Your task to perform on an android device: refresh tabs in the chrome app Image 0: 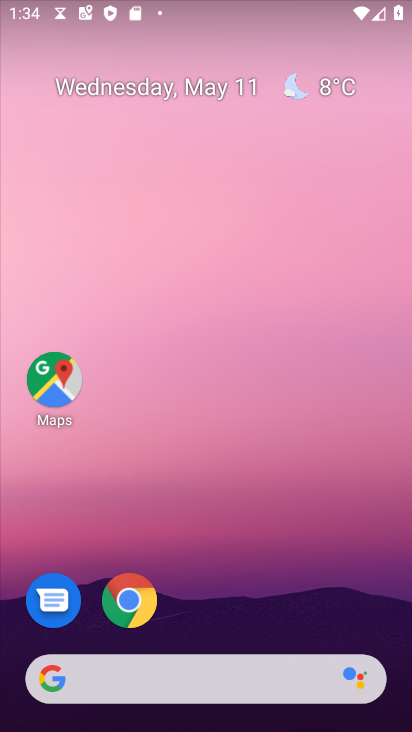
Step 0: click (130, 595)
Your task to perform on an android device: refresh tabs in the chrome app Image 1: 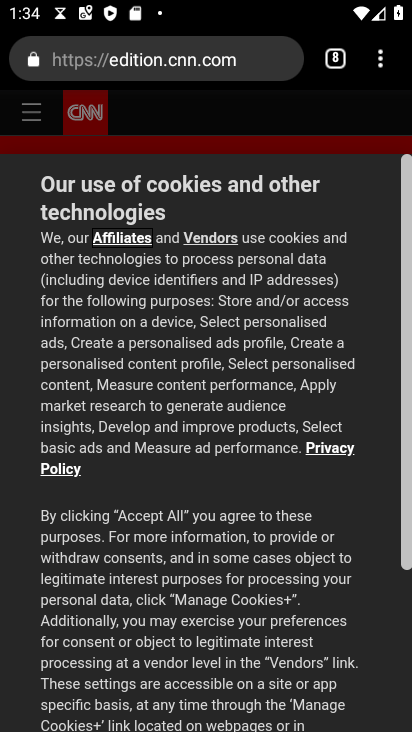
Step 1: click (382, 60)
Your task to perform on an android device: refresh tabs in the chrome app Image 2: 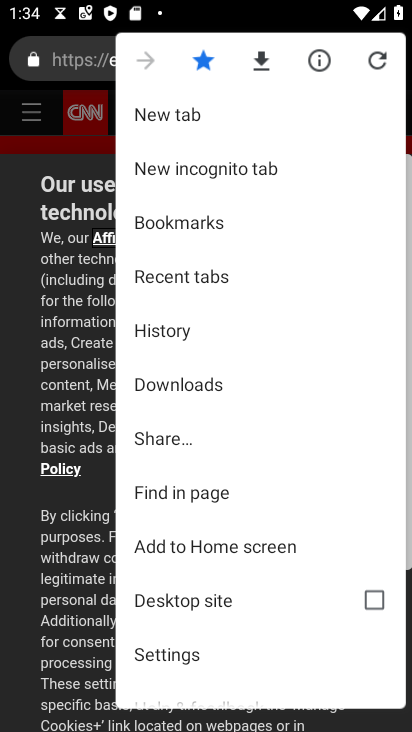
Step 2: click (214, 278)
Your task to perform on an android device: refresh tabs in the chrome app Image 3: 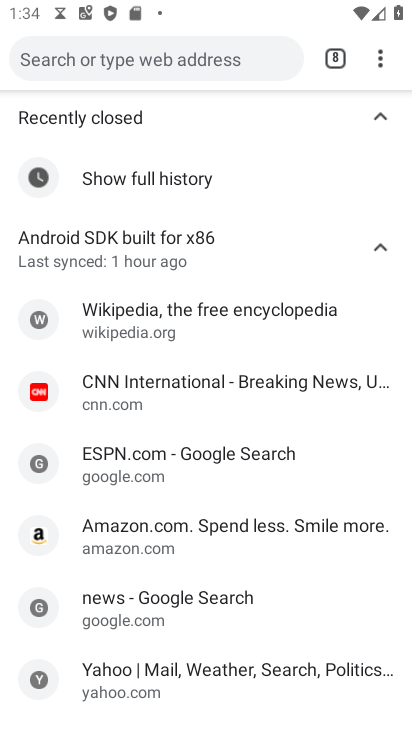
Step 3: task complete